Your task to perform on an android device: change notification settings in the gmail app Image 0: 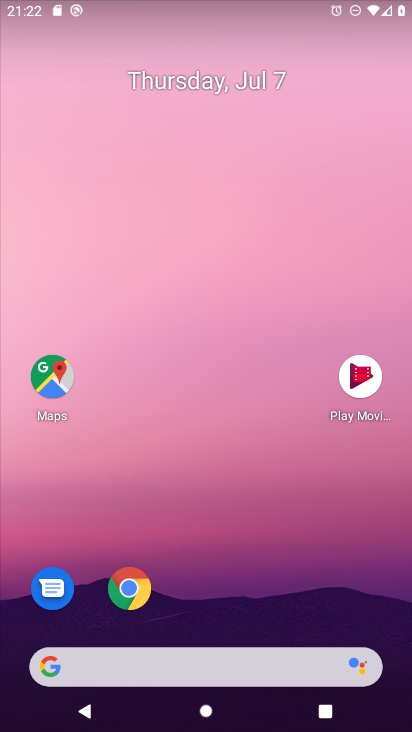
Step 0: drag from (201, 668) to (199, 327)
Your task to perform on an android device: change notification settings in the gmail app Image 1: 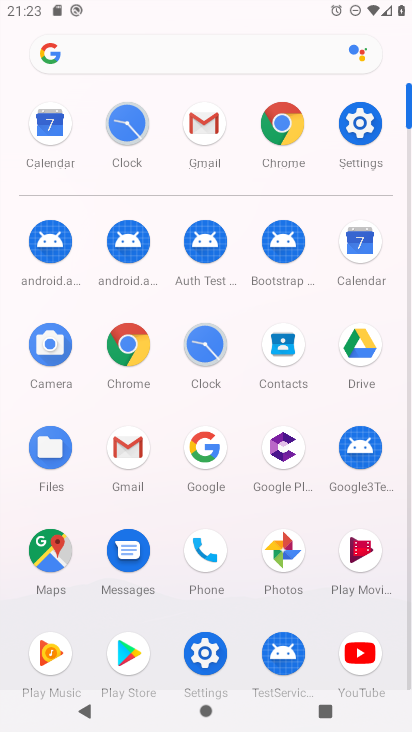
Step 1: click (139, 446)
Your task to perform on an android device: change notification settings in the gmail app Image 2: 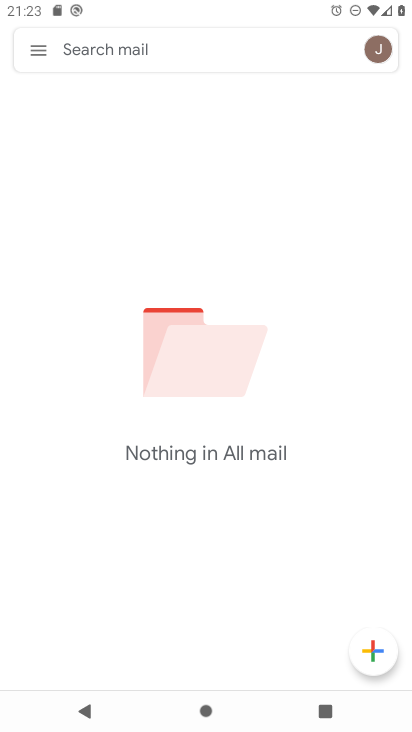
Step 2: click (31, 46)
Your task to perform on an android device: change notification settings in the gmail app Image 3: 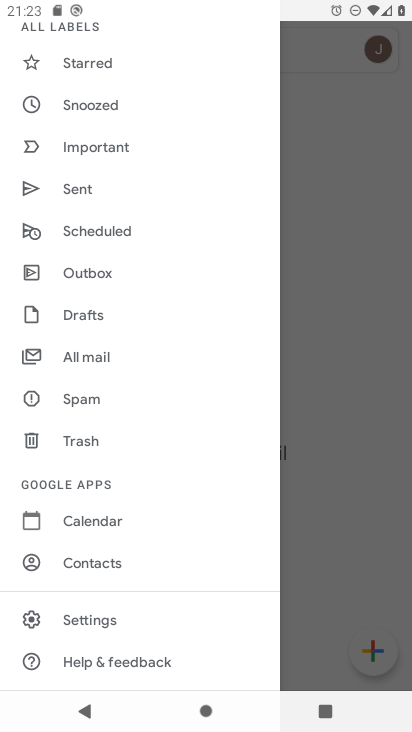
Step 3: click (95, 612)
Your task to perform on an android device: change notification settings in the gmail app Image 4: 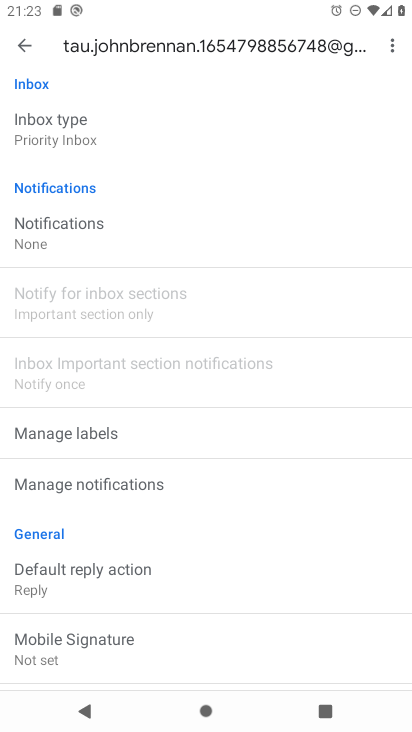
Step 4: click (87, 231)
Your task to perform on an android device: change notification settings in the gmail app Image 5: 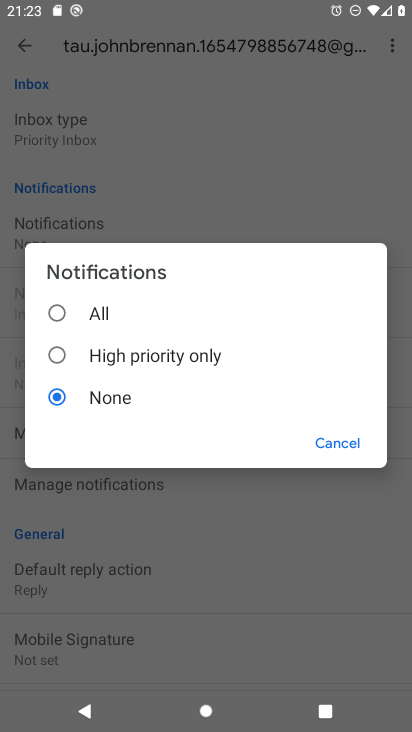
Step 5: click (97, 307)
Your task to perform on an android device: change notification settings in the gmail app Image 6: 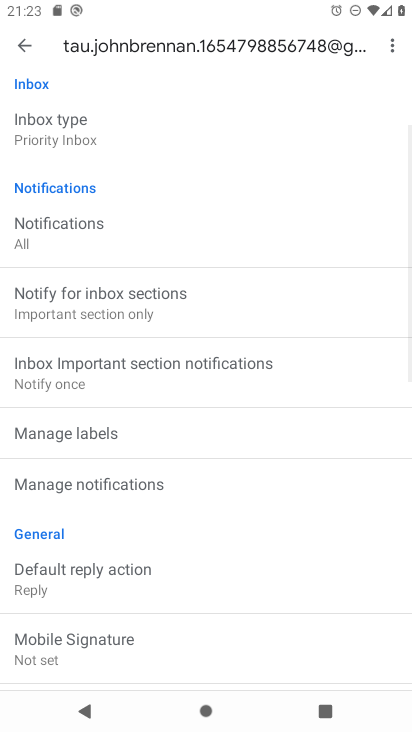
Step 6: task complete